Your task to perform on an android device: turn on showing notifications on the lock screen Image 0: 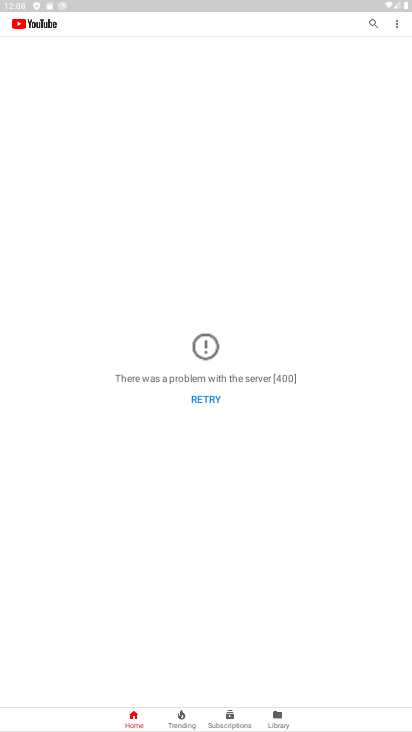
Step 0: press home button
Your task to perform on an android device: turn on showing notifications on the lock screen Image 1: 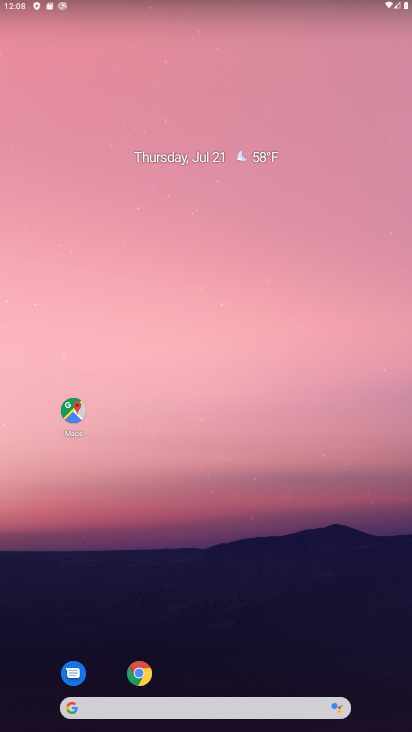
Step 1: drag from (185, 667) to (257, 318)
Your task to perform on an android device: turn on showing notifications on the lock screen Image 2: 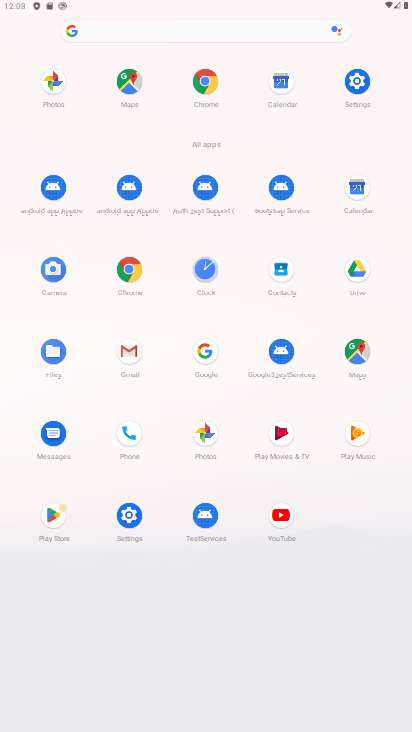
Step 2: click (357, 66)
Your task to perform on an android device: turn on showing notifications on the lock screen Image 3: 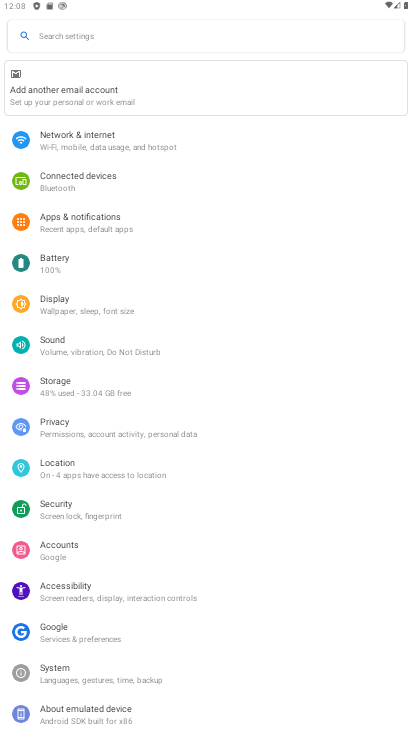
Step 3: click (78, 217)
Your task to perform on an android device: turn on showing notifications on the lock screen Image 4: 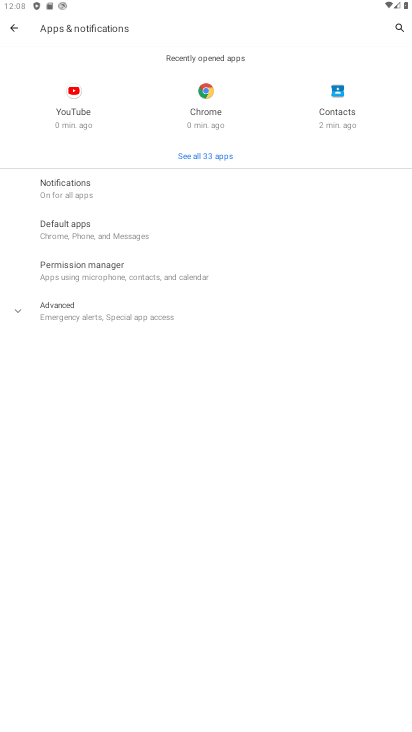
Step 4: click (123, 181)
Your task to perform on an android device: turn on showing notifications on the lock screen Image 5: 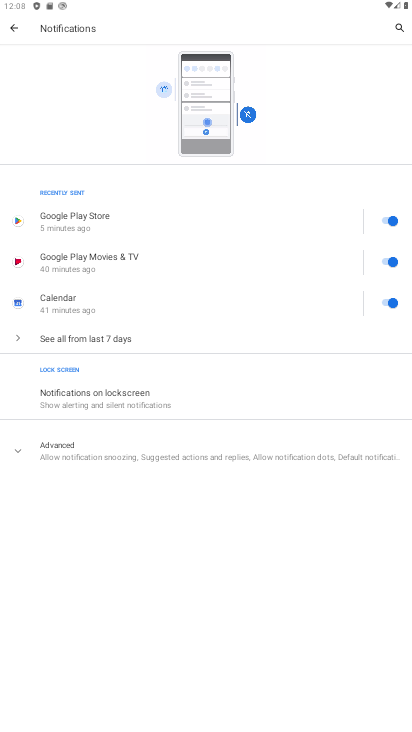
Step 5: click (156, 393)
Your task to perform on an android device: turn on showing notifications on the lock screen Image 6: 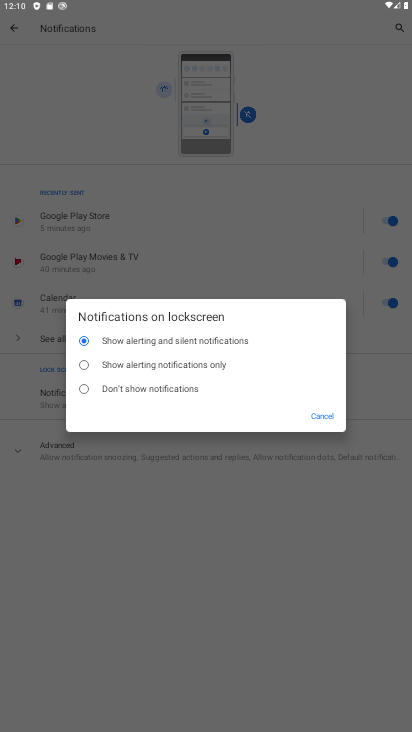
Step 6: task complete